Your task to perform on an android device: check out phone information Image 0: 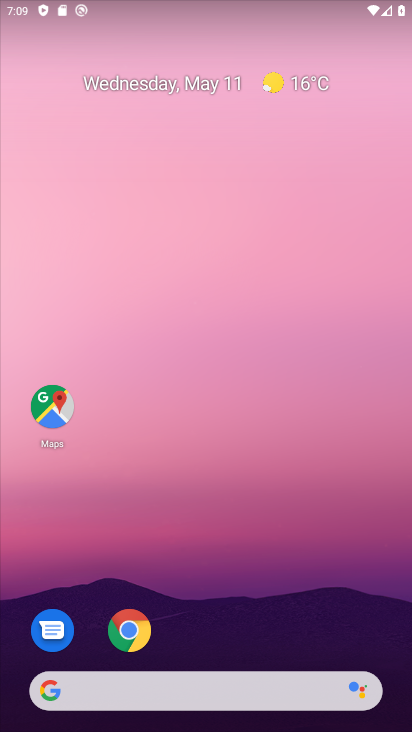
Step 0: drag from (329, 581) to (342, 5)
Your task to perform on an android device: check out phone information Image 1: 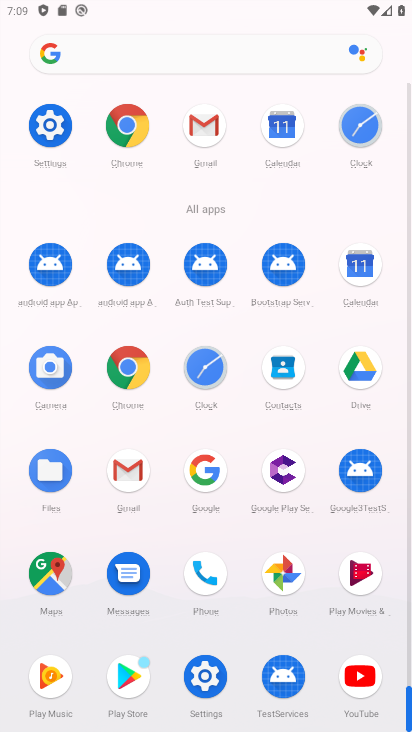
Step 1: click (35, 144)
Your task to perform on an android device: check out phone information Image 2: 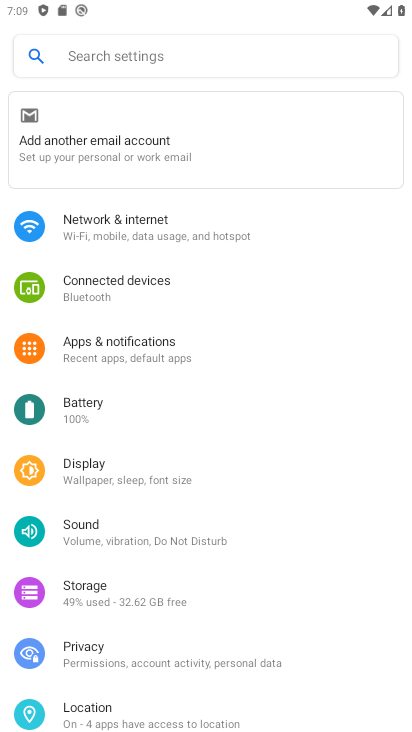
Step 2: drag from (151, 551) to (134, 29)
Your task to perform on an android device: check out phone information Image 3: 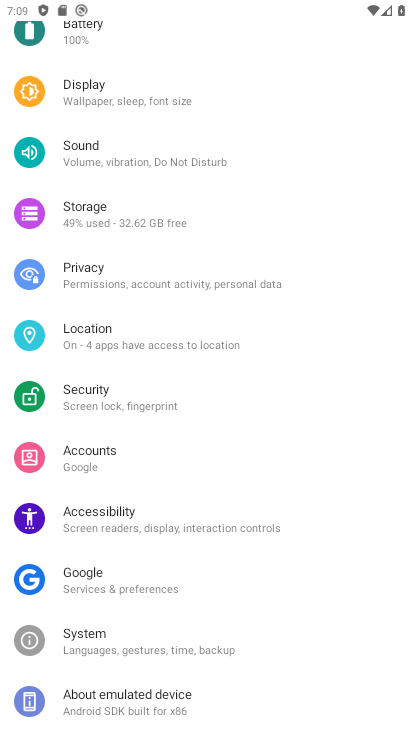
Step 3: drag from (201, 621) to (178, 63)
Your task to perform on an android device: check out phone information Image 4: 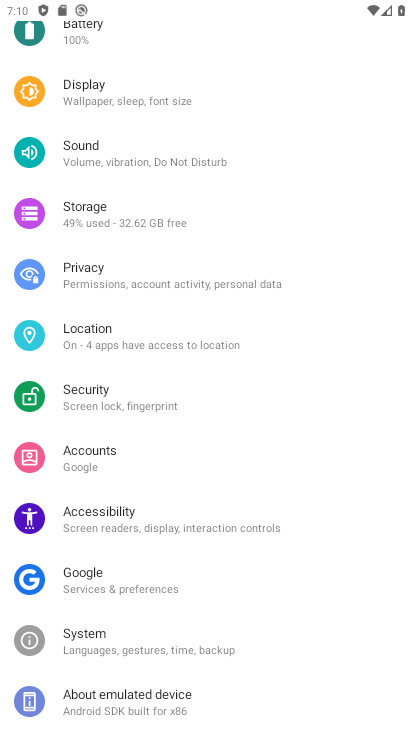
Step 4: drag from (221, 681) to (209, 194)
Your task to perform on an android device: check out phone information Image 5: 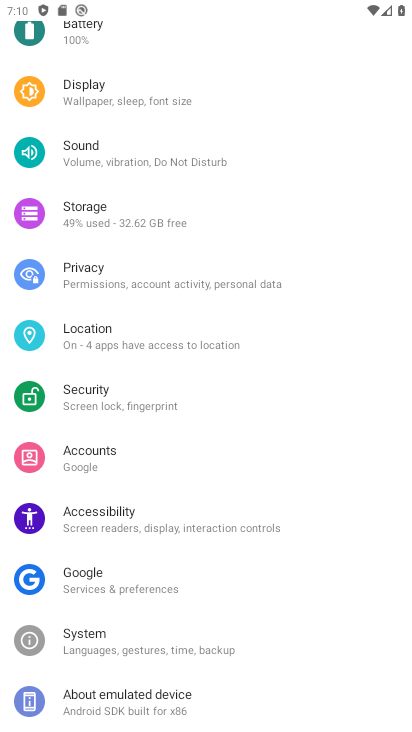
Step 5: click (104, 709)
Your task to perform on an android device: check out phone information Image 6: 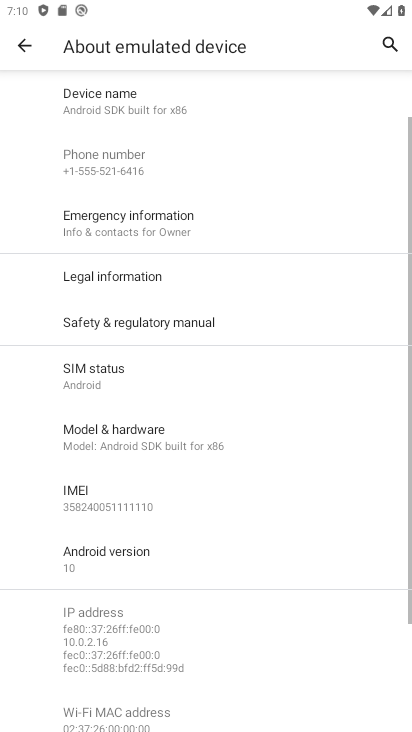
Step 6: task complete